Your task to perform on an android device: turn off notifications settings in the gmail app Image 0: 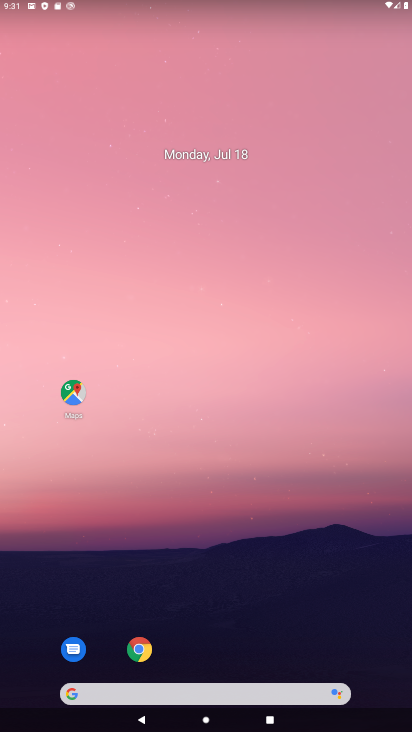
Step 0: drag from (236, 608) to (245, 212)
Your task to perform on an android device: turn off notifications settings in the gmail app Image 1: 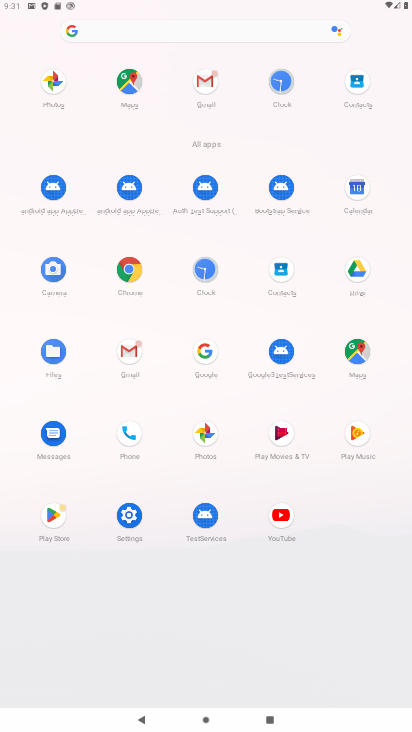
Step 1: click (124, 339)
Your task to perform on an android device: turn off notifications settings in the gmail app Image 2: 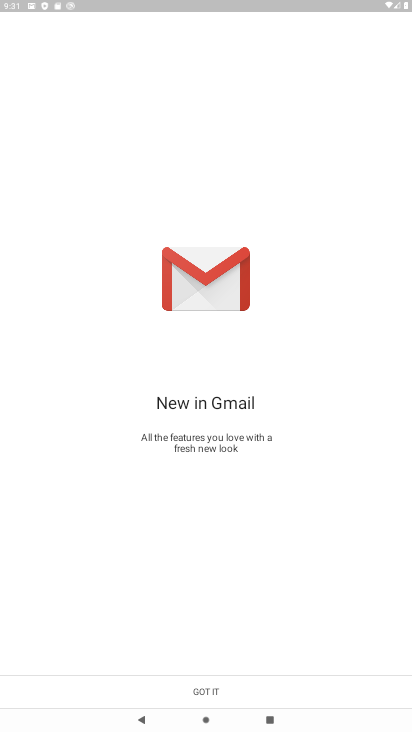
Step 2: click (208, 696)
Your task to perform on an android device: turn off notifications settings in the gmail app Image 3: 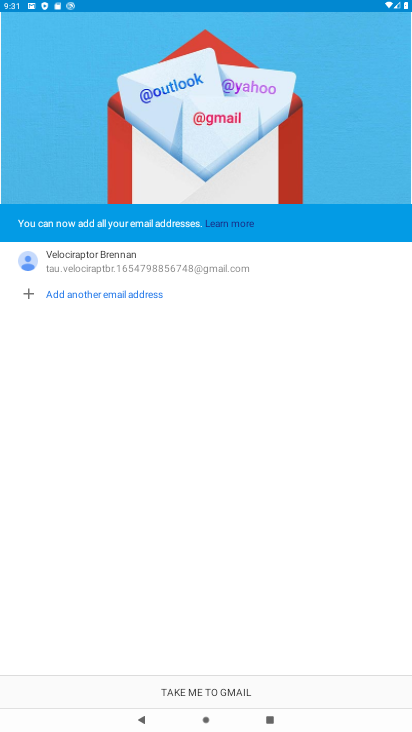
Step 3: click (208, 694)
Your task to perform on an android device: turn off notifications settings in the gmail app Image 4: 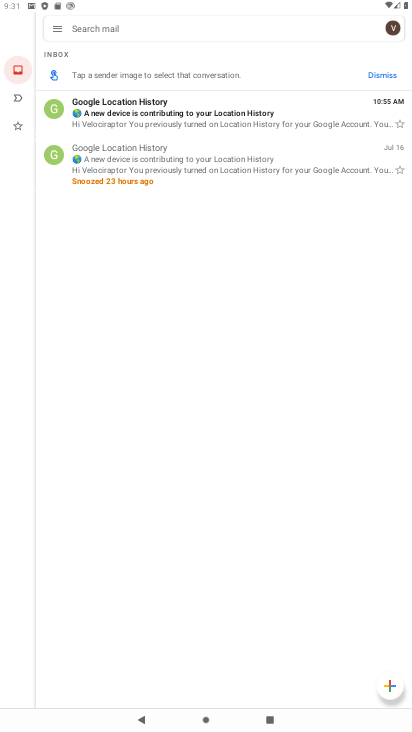
Step 4: click (56, 40)
Your task to perform on an android device: turn off notifications settings in the gmail app Image 5: 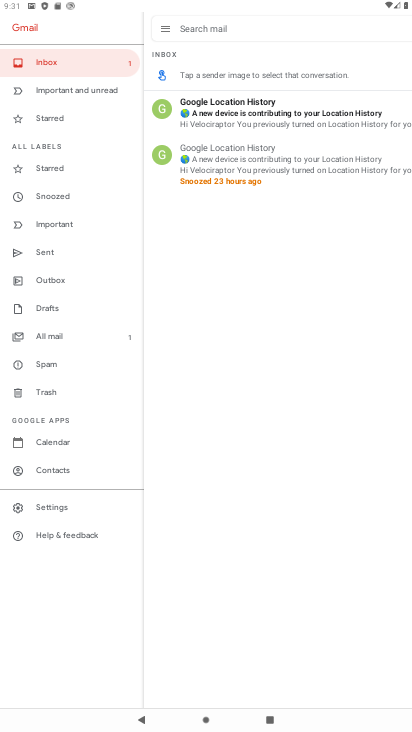
Step 5: click (88, 512)
Your task to perform on an android device: turn off notifications settings in the gmail app Image 6: 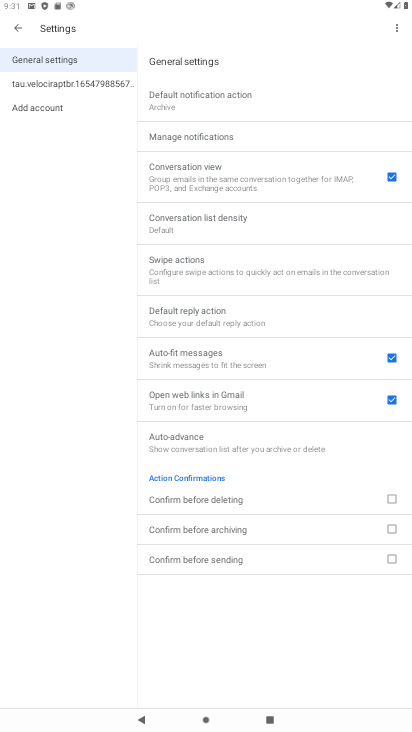
Step 6: click (84, 89)
Your task to perform on an android device: turn off notifications settings in the gmail app Image 7: 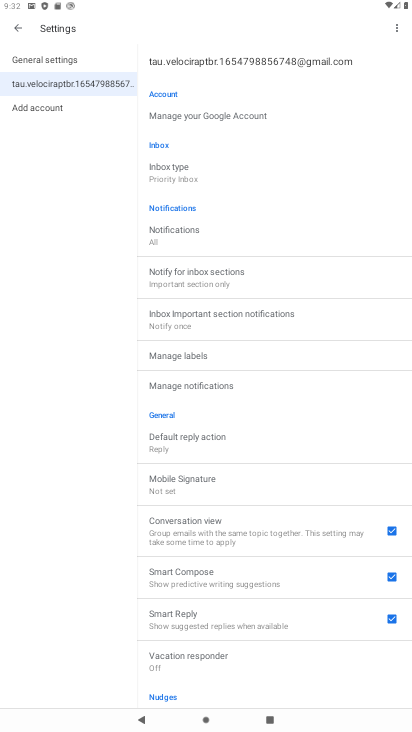
Step 7: click (198, 391)
Your task to perform on an android device: turn off notifications settings in the gmail app Image 8: 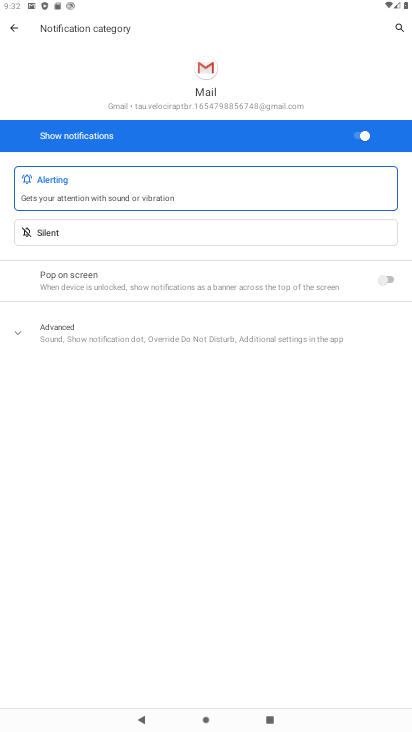
Step 8: click (352, 135)
Your task to perform on an android device: turn off notifications settings in the gmail app Image 9: 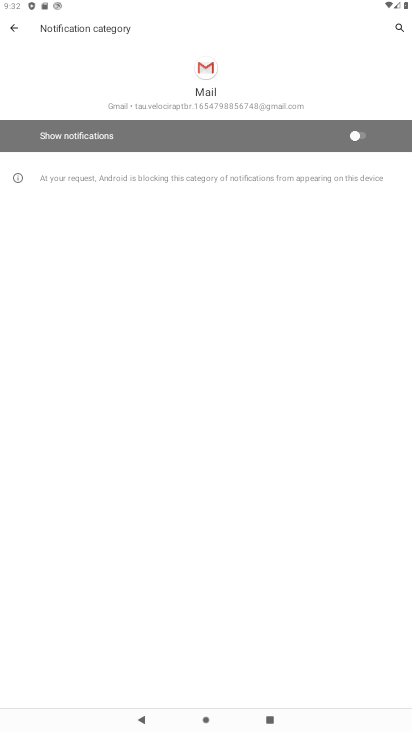
Step 9: task complete